Your task to perform on an android device: Open accessibility settings Image 0: 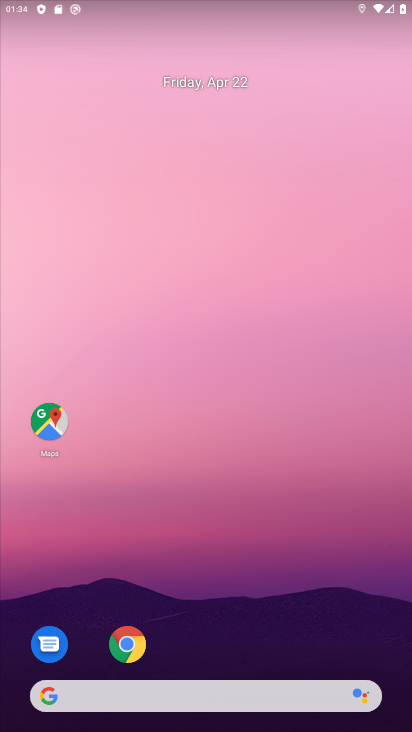
Step 0: click (146, 645)
Your task to perform on an android device: Open accessibility settings Image 1: 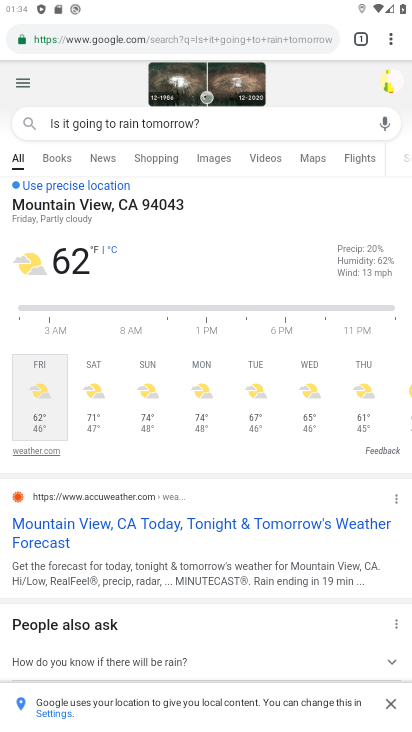
Step 1: click (394, 36)
Your task to perform on an android device: Open accessibility settings Image 2: 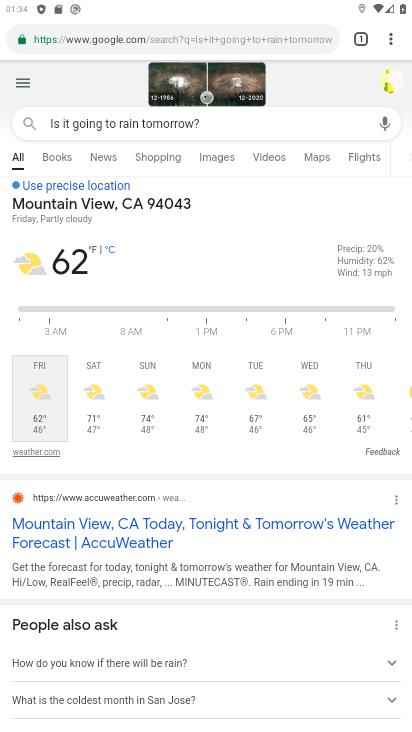
Step 2: click (394, 36)
Your task to perform on an android device: Open accessibility settings Image 3: 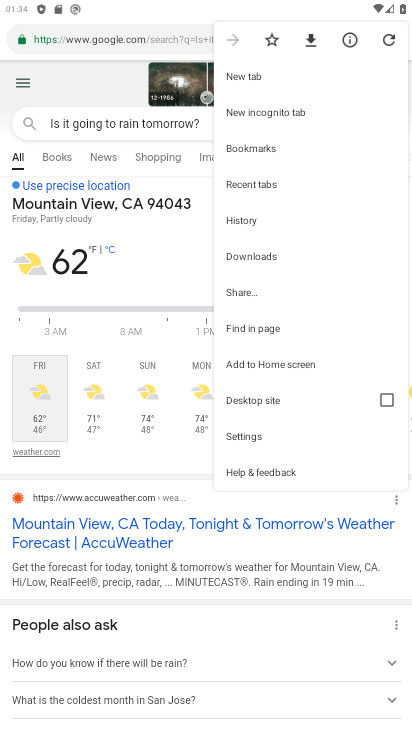
Step 3: click (271, 443)
Your task to perform on an android device: Open accessibility settings Image 4: 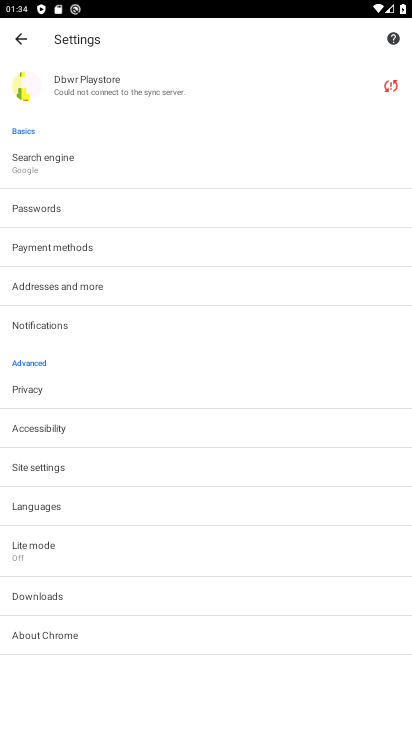
Step 4: click (201, 430)
Your task to perform on an android device: Open accessibility settings Image 5: 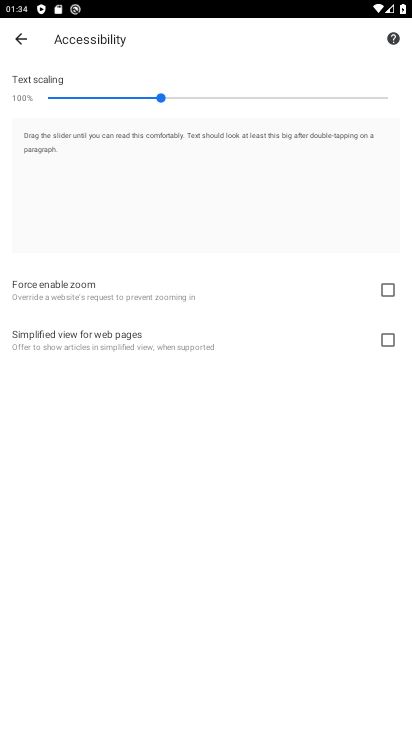
Step 5: task complete